Your task to perform on an android device: Open the stopwatch Image 0: 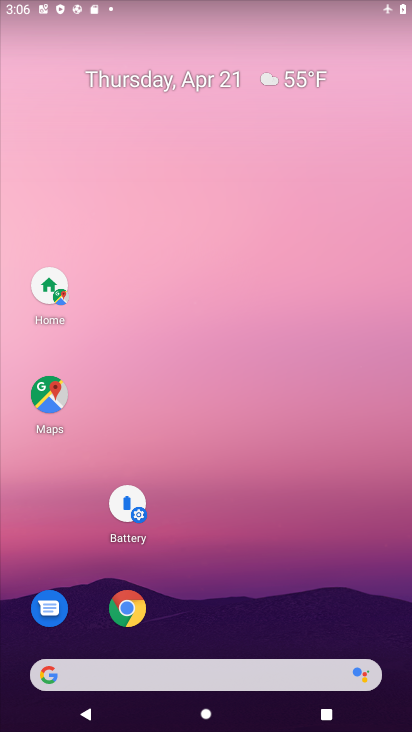
Step 0: drag from (302, 569) to (296, 28)
Your task to perform on an android device: Open the stopwatch Image 1: 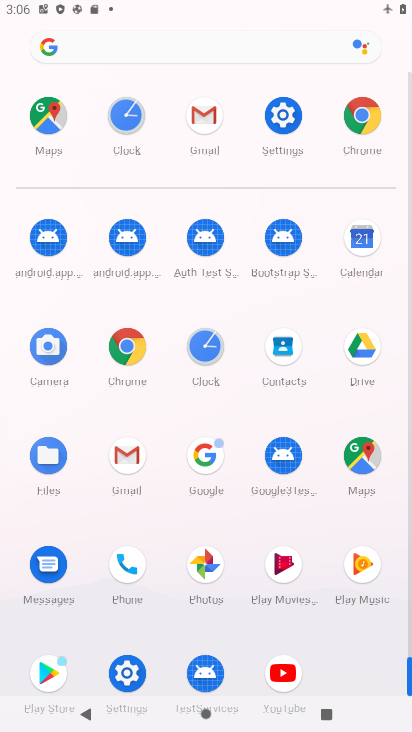
Step 1: click (220, 358)
Your task to perform on an android device: Open the stopwatch Image 2: 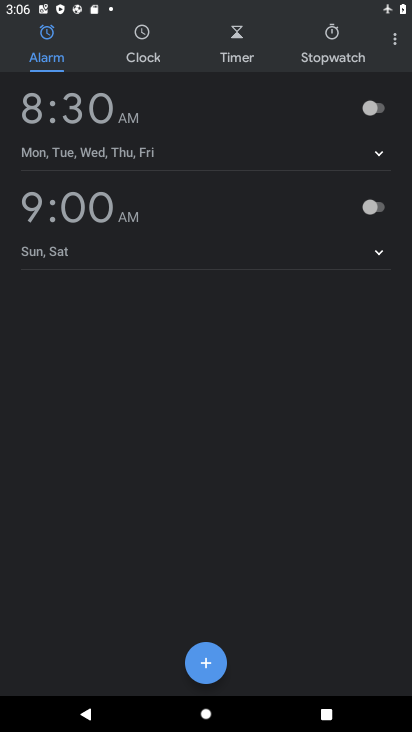
Step 2: click (346, 67)
Your task to perform on an android device: Open the stopwatch Image 3: 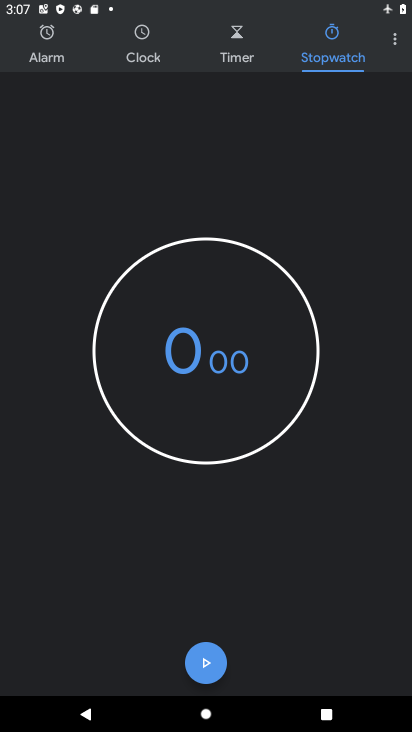
Step 3: click (212, 661)
Your task to perform on an android device: Open the stopwatch Image 4: 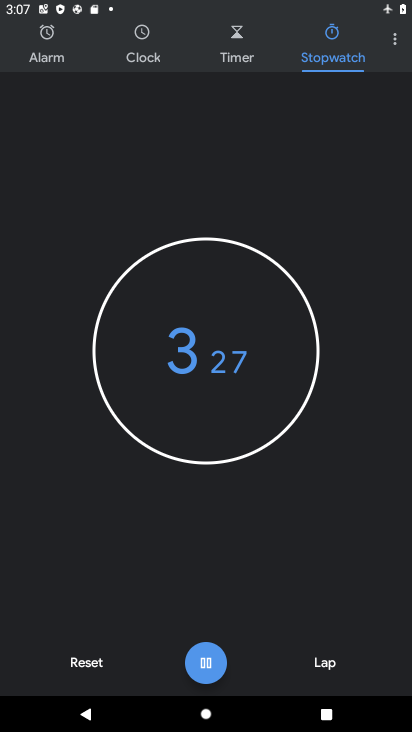
Step 4: task complete